Your task to perform on an android device: Open settings Image 0: 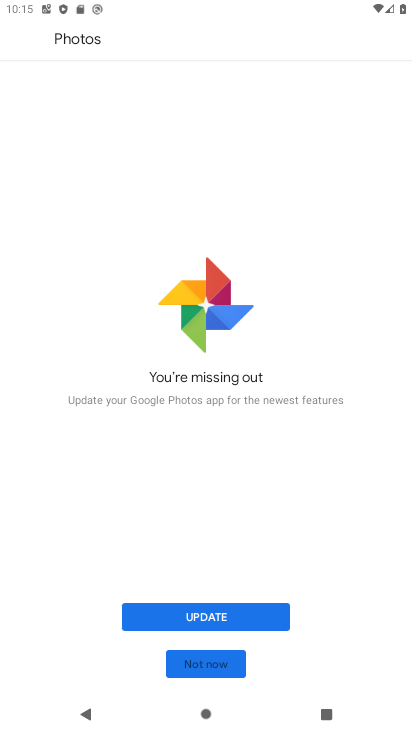
Step 0: press home button
Your task to perform on an android device: Open settings Image 1: 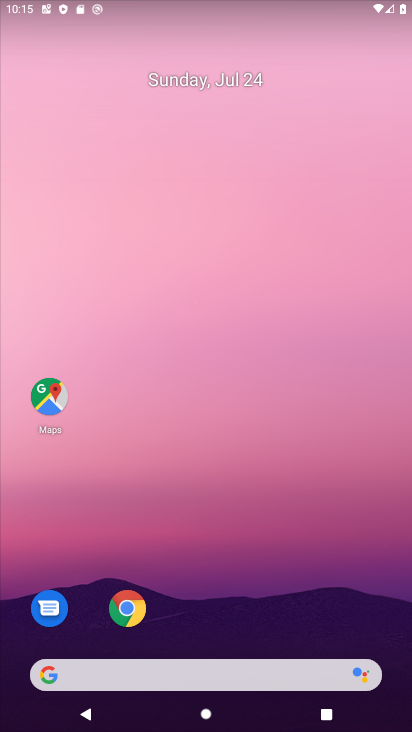
Step 1: drag from (248, 622) to (165, 0)
Your task to perform on an android device: Open settings Image 2: 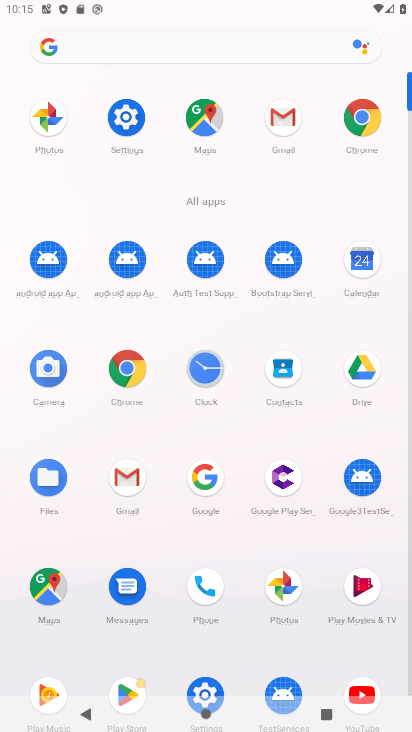
Step 2: click (118, 114)
Your task to perform on an android device: Open settings Image 3: 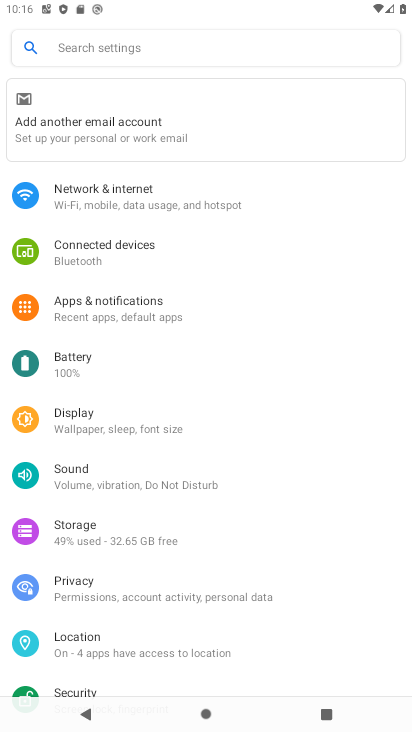
Step 3: task complete